Your task to perform on an android device: turn on bluetooth scan Image 0: 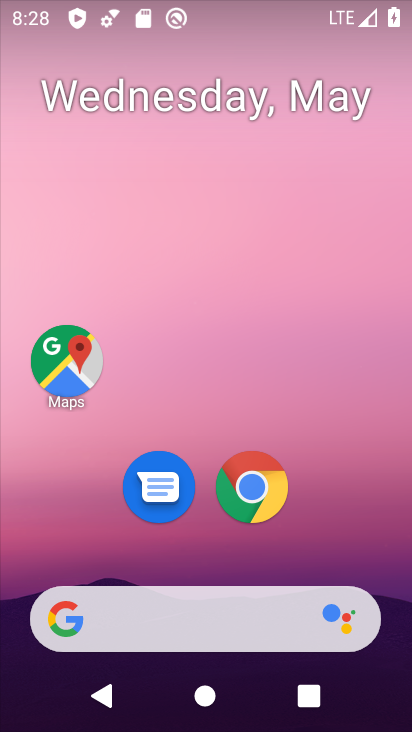
Step 0: drag from (206, 505) to (208, 104)
Your task to perform on an android device: turn on bluetooth scan Image 1: 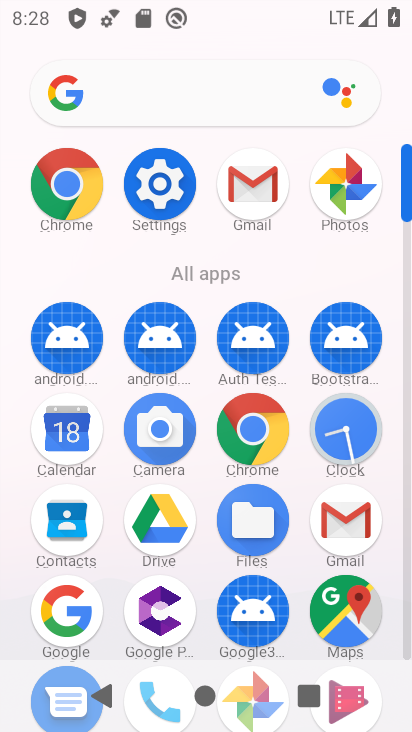
Step 1: click (148, 187)
Your task to perform on an android device: turn on bluetooth scan Image 2: 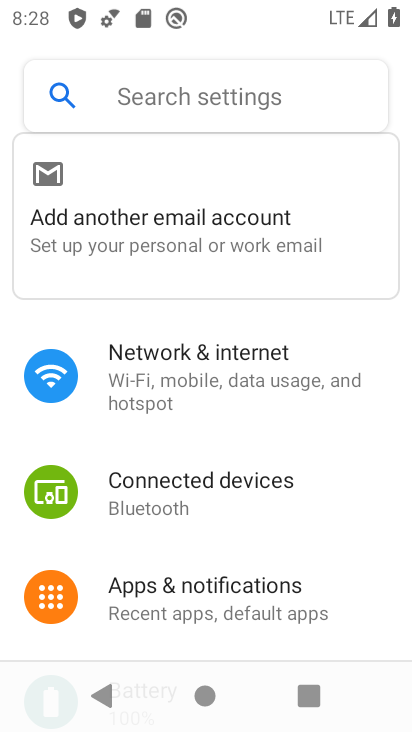
Step 2: drag from (217, 563) to (261, 257)
Your task to perform on an android device: turn on bluetooth scan Image 3: 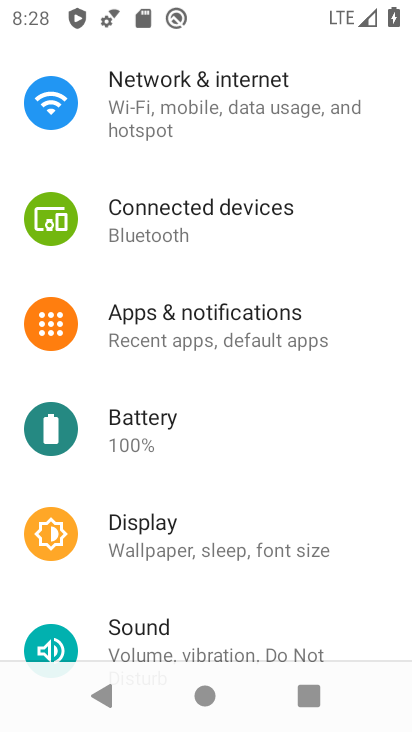
Step 3: drag from (242, 480) to (256, 216)
Your task to perform on an android device: turn on bluetooth scan Image 4: 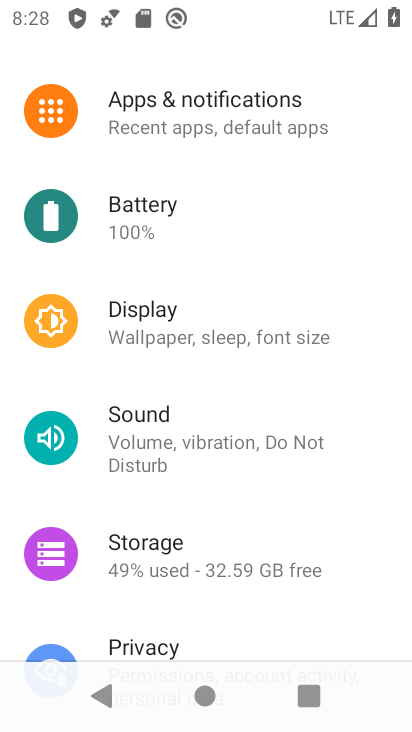
Step 4: drag from (229, 587) to (273, 240)
Your task to perform on an android device: turn on bluetooth scan Image 5: 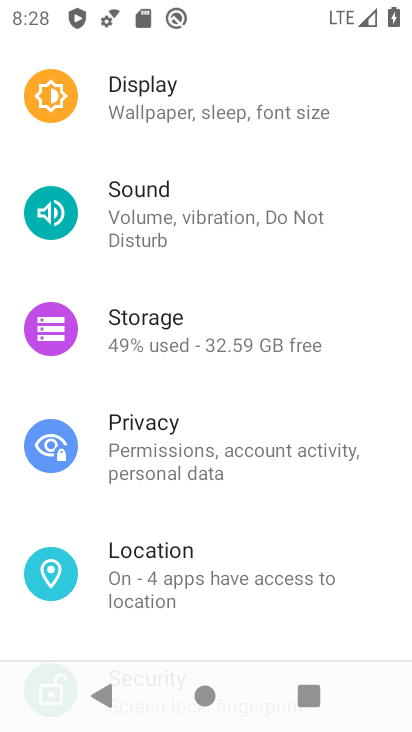
Step 5: click (248, 549)
Your task to perform on an android device: turn on bluetooth scan Image 6: 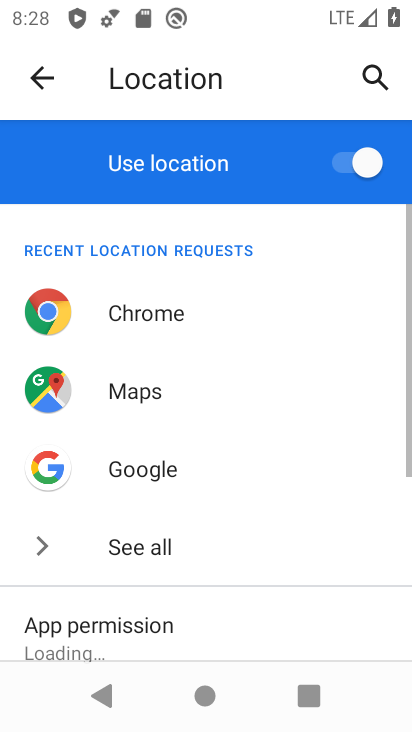
Step 6: drag from (248, 532) to (240, 247)
Your task to perform on an android device: turn on bluetooth scan Image 7: 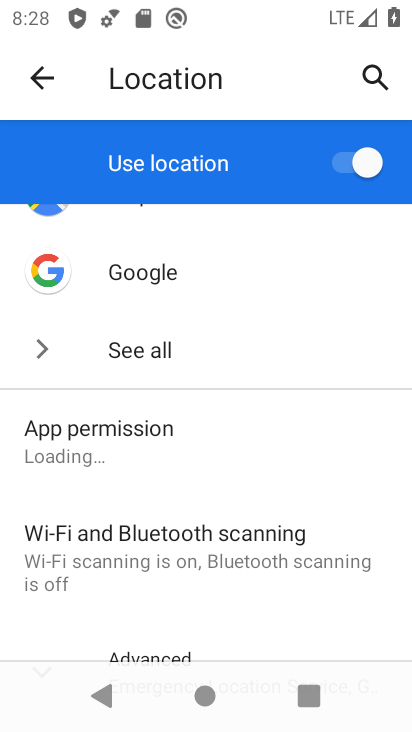
Step 7: drag from (232, 518) to (274, 285)
Your task to perform on an android device: turn on bluetooth scan Image 8: 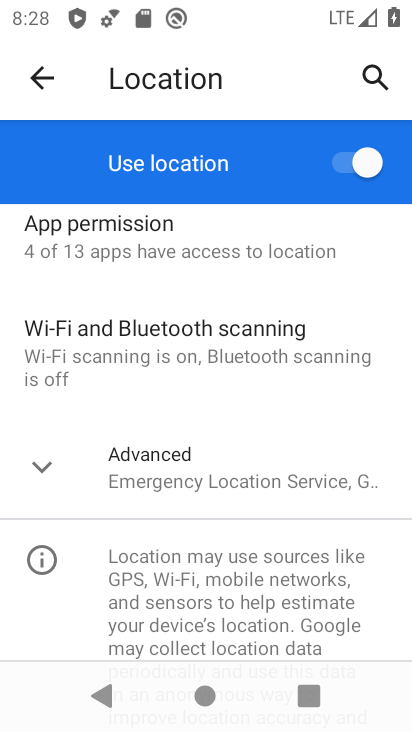
Step 8: click (221, 470)
Your task to perform on an android device: turn on bluetooth scan Image 9: 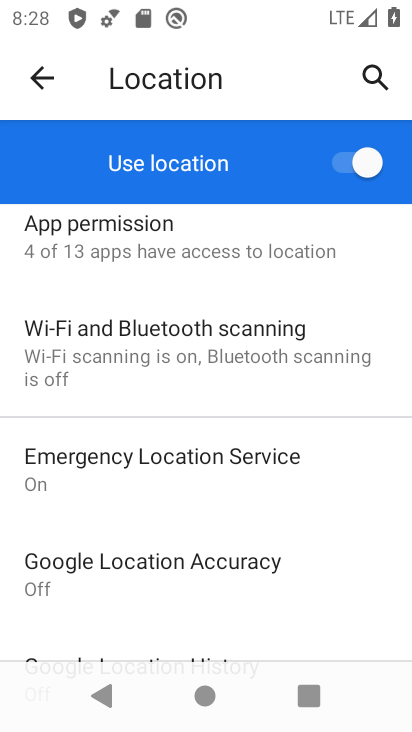
Step 9: drag from (216, 579) to (263, 367)
Your task to perform on an android device: turn on bluetooth scan Image 10: 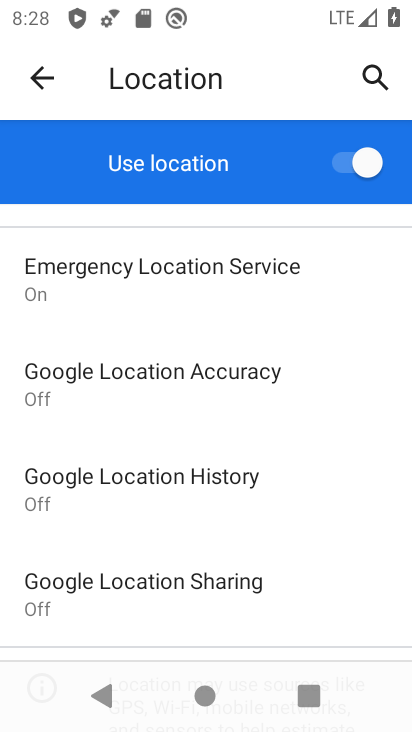
Step 10: drag from (269, 266) to (278, 549)
Your task to perform on an android device: turn on bluetooth scan Image 11: 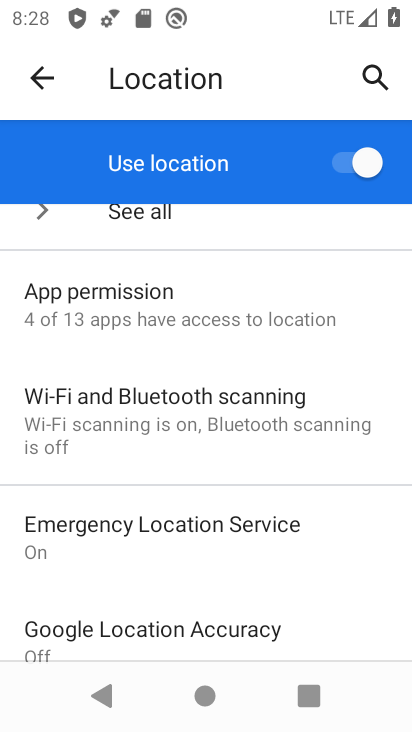
Step 11: drag from (271, 336) to (300, 636)
Your task to perform on an android device: turn on bluetooth scan Image 12: 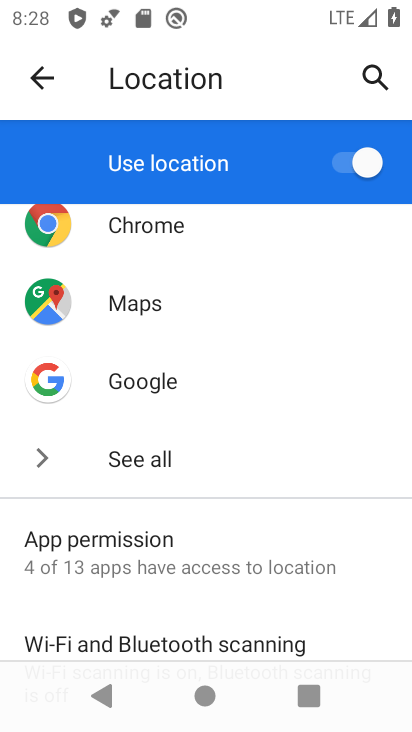
Step 12: drag from (275, 360) to (275, 600)
Your task to perform on an android device: turn on bluetooth scan Image 13: 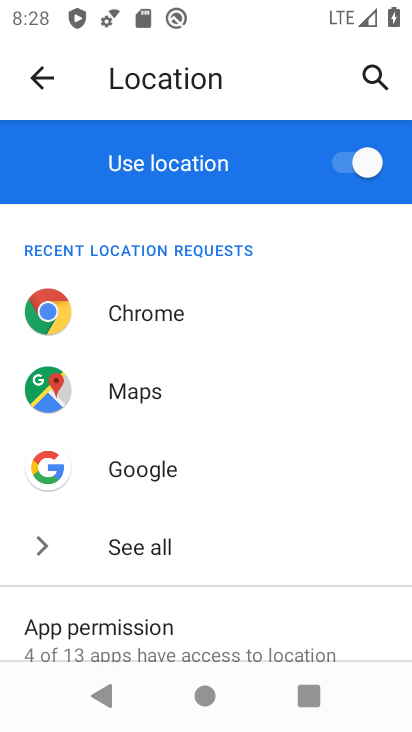
Step 13: click (52, 69)
Your task to perform on an android device: turn on bluetooth scan Image 14: 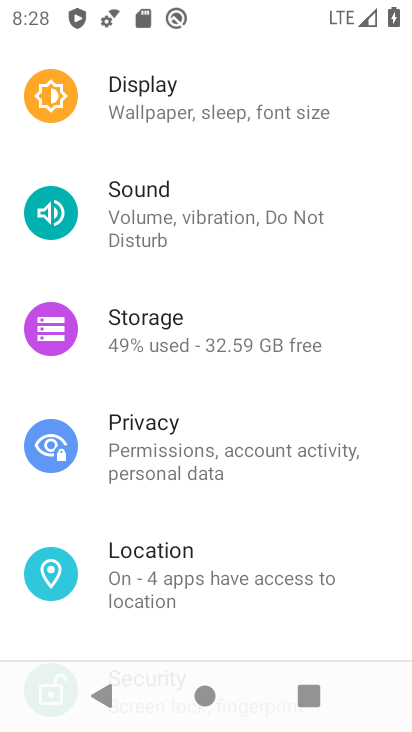
Step 14: click (176, 553)
Your task to perform on an android device: turn on bluetooth scan Image 15: 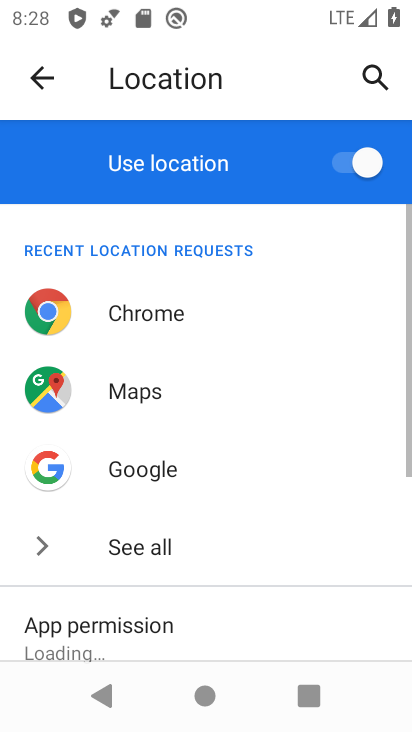
Step 15: drag from (211, 552) to (272, 217)
Your task to perform on an android device: turn on bluetooth scan Image 16: 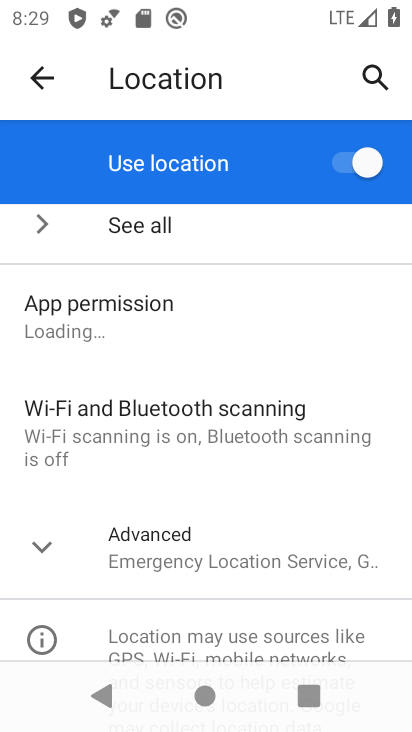
Step 16: click (275, 400)
Your task to perform on an android device: turn on bluetooth scan Image 17: 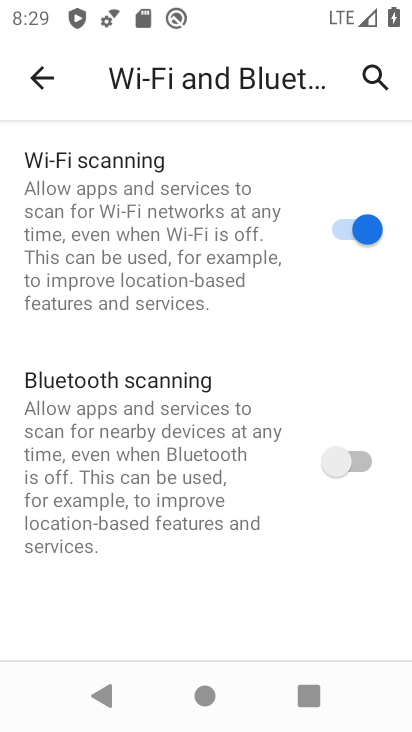
Step 17: click (359, 465)
Your task to perform on an android device: turn on bluetooth scan Image 18: 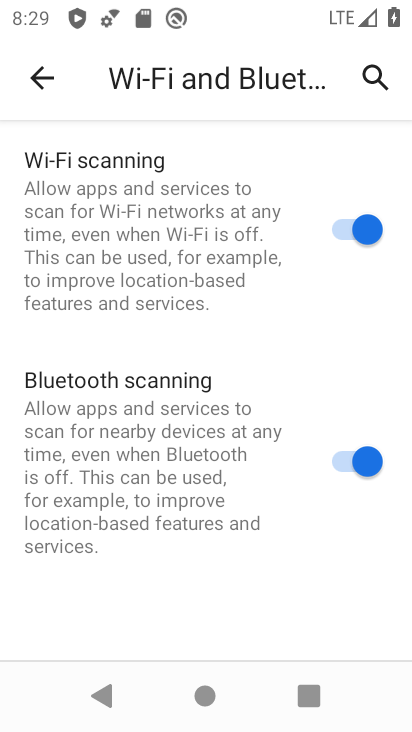
Step 18: task complete